Your task to perform on an android device: Open the Play Movies app and select the watchlist tab. Image 0: 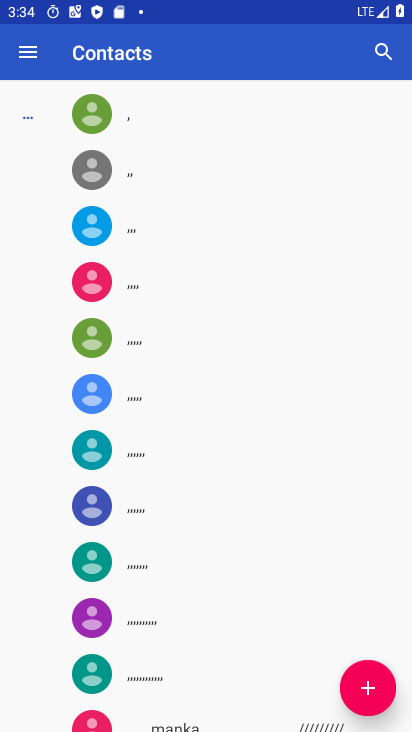
Step 0: press home button
Your task to perform on an android device: Open the Play Movies app and select the watchlist tab. Image 1: 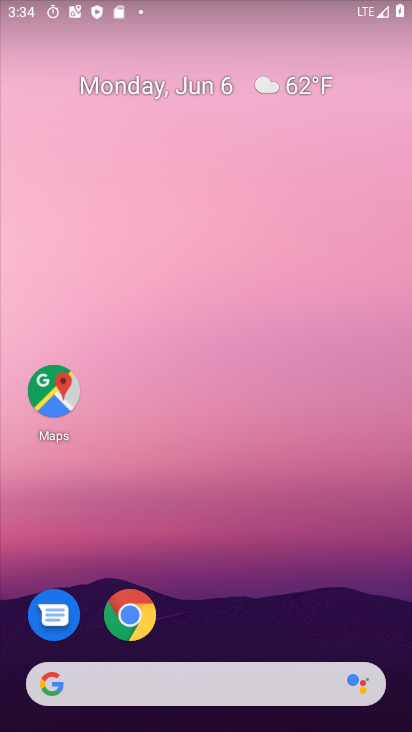
Step 1: drag from (242, 681) to (296, 79)
Your task to perform on an android device: Open the Play Movies app and select the watchlist tab. Image 2: 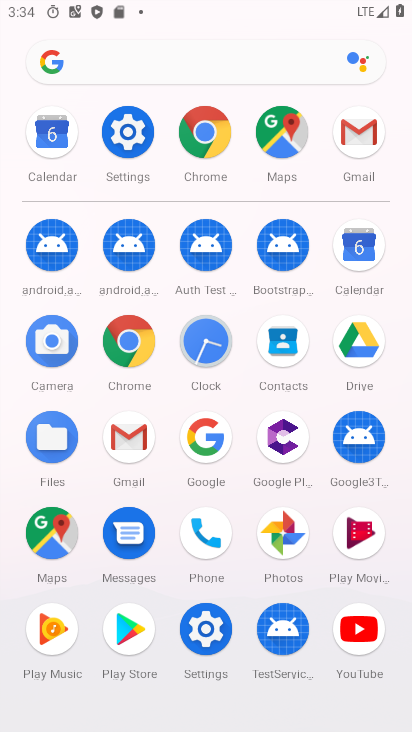
Step 2: click (362, 537)
Your task to perform on an android device: Open the Play Movies app and select the watchlist tab. Image 3: 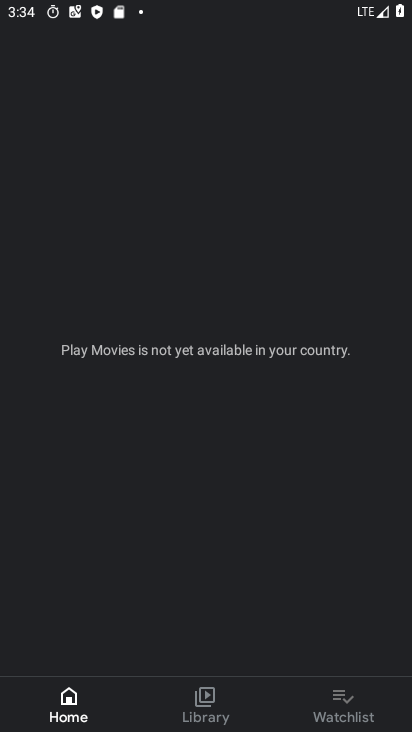
Step 3: click (339, 700)
Your task to perform on an android device: Open the Play Movies app and select the watchlist tab. Image 4: 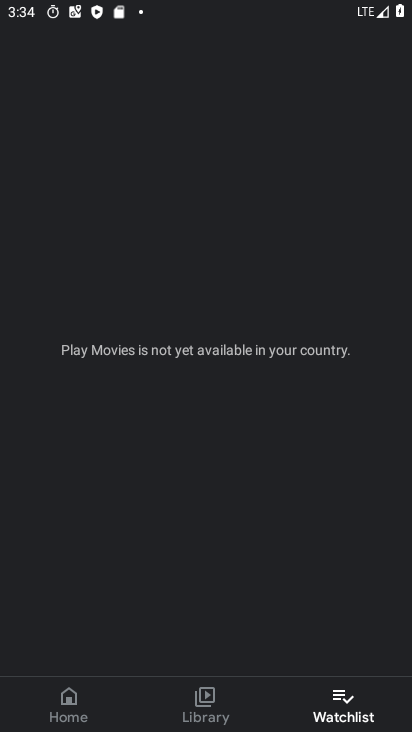
Step 4: task complete